Your task to perform on an android device: Toggle the flashlight Image 0: 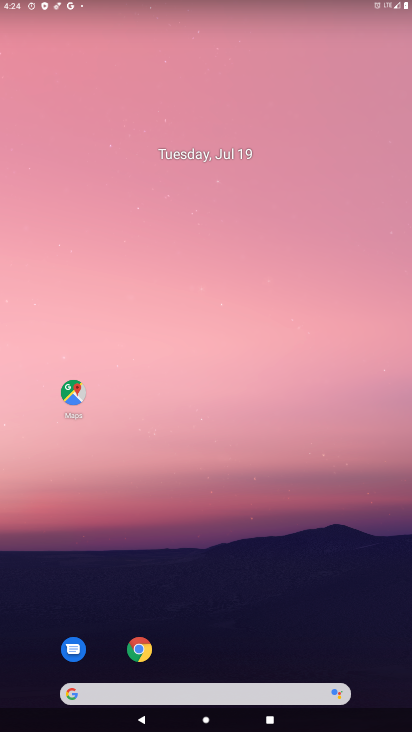
Step 0: drag from (296, 3) to (339, 451)
Your task to perform on an android device: Toggle the flashlight Image 1: 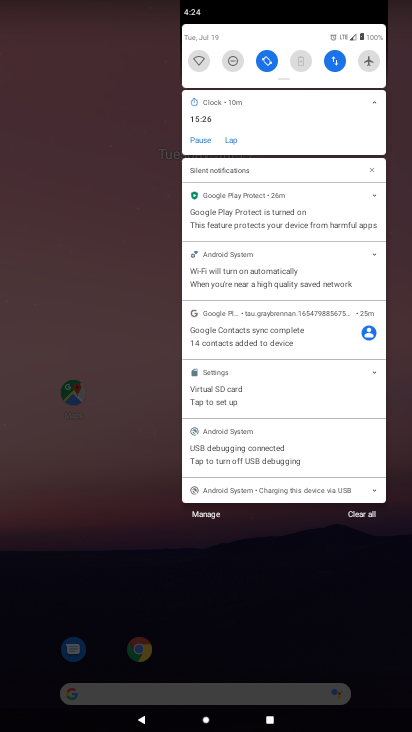
Step 1: drag from (284, 78) to (355, 505)
Your task to perform on an android device: Toggle the flashlight Image 2: 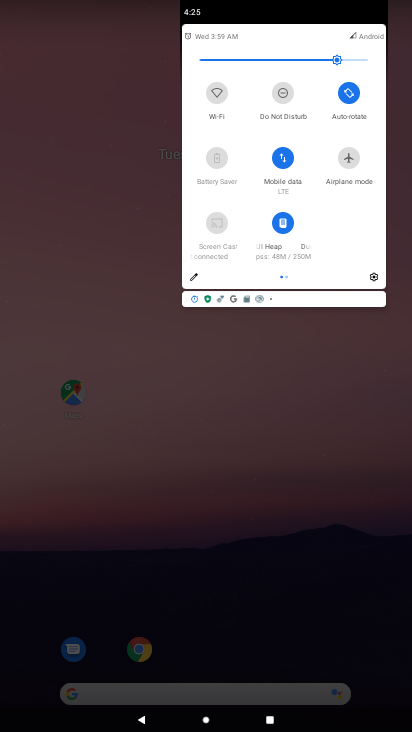
Step 2: drag from (316, 267) to (376, 689)
Your task to perform on an android device: Toggle the flashlight Image 3: 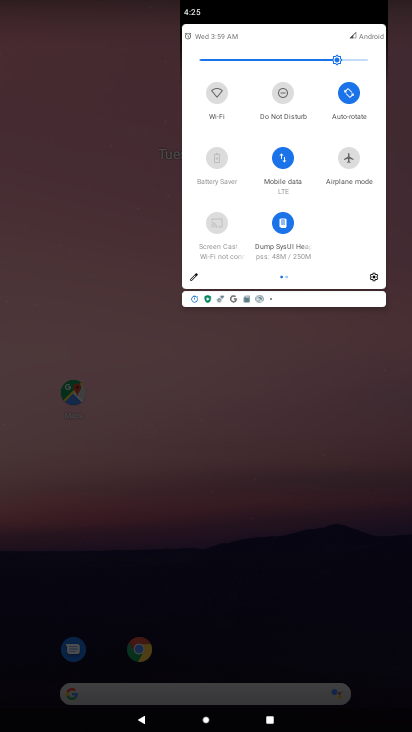
Step 3: click (196, 272)
Your task to perform on an android device: Toggle the flashlight Image 4: 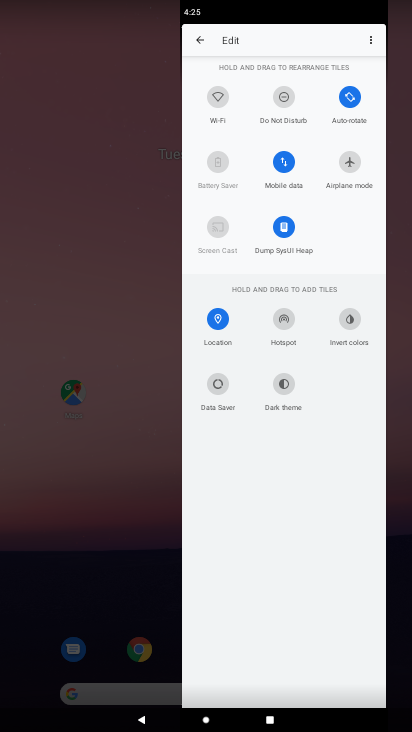
Step 4: task complete